Your task to perform on an android device: Search for Italian restaurants on Maps Image 0: 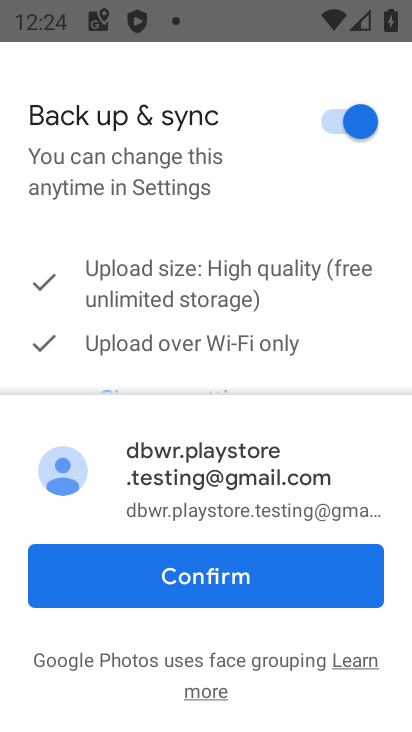
Step 0: press home button
Your task to perform on an android device: Search for Italian restaurants on Maps Image 1: 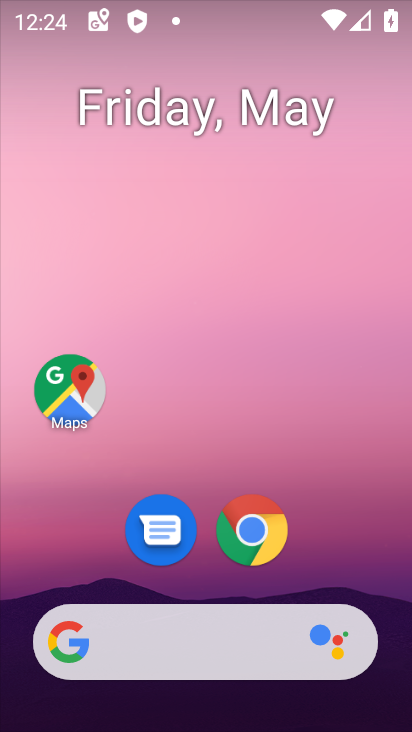
Step 1: click (70, 393)
Your task to perform on an android device: Search for Italian restaurants on Maps Image 2: 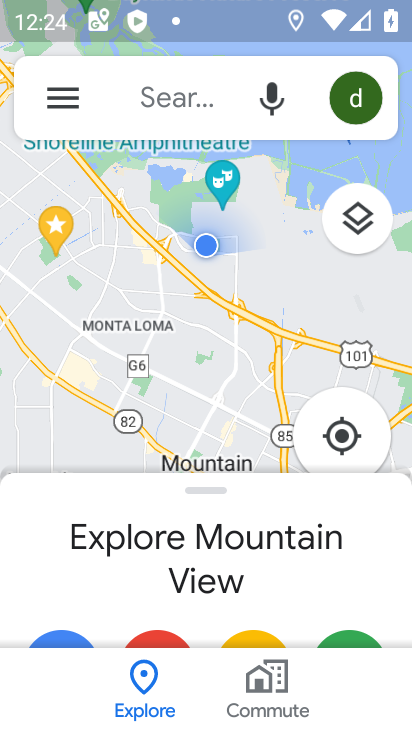
Step 2: click (170, 102)
Your task to perform on an android device: Search for Italian restaurants on Maps Image 3: 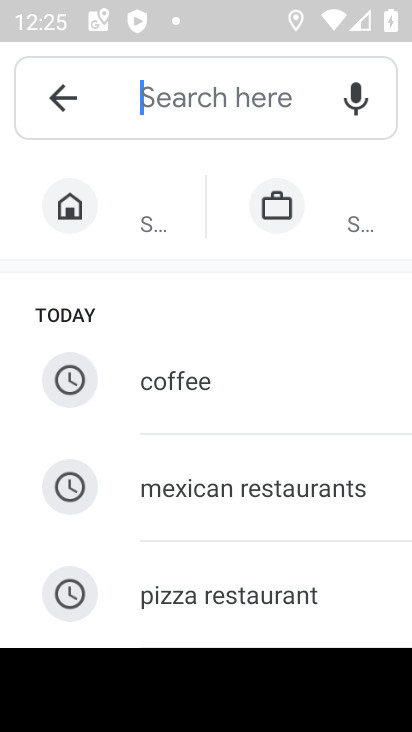
Step 3: type "Italian restaurants"
Your task to perform on an android device: Search for Italian restaurants on Maps Image 4: 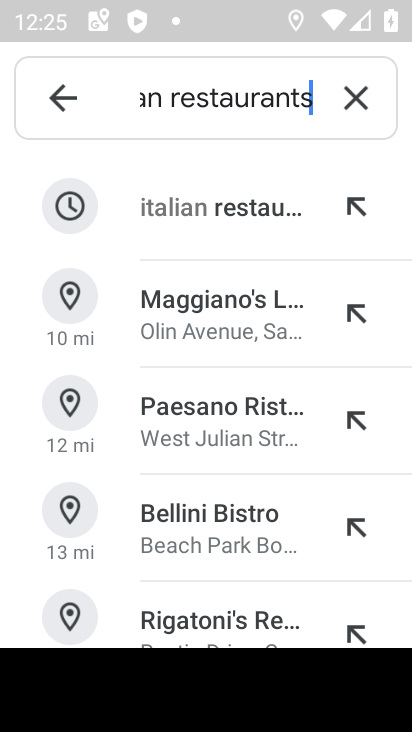
Step 4: click (234, 216)
Your task to perform on an android device: Search for Italian restaurants on Maps Image 5: 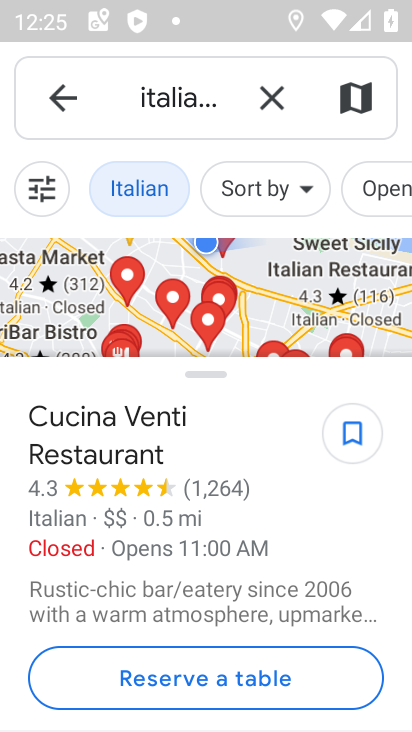
Step 5: task complete